Your task to perform on an android device: check android version Image 0: 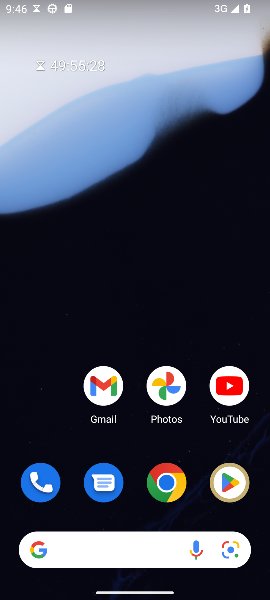
Step 0: drag from (116, 535) to (117, 162)
Your task to perform on an android device: check android version Image 1: 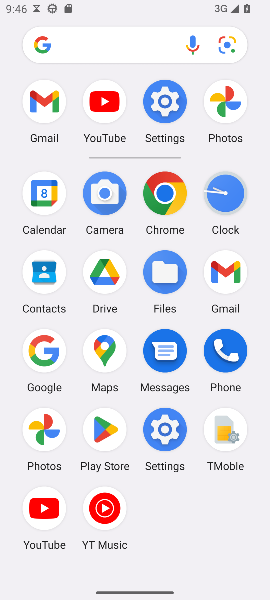
Step 1: click (174, 97)
Your task to perform on an android device: check android version Image 2: 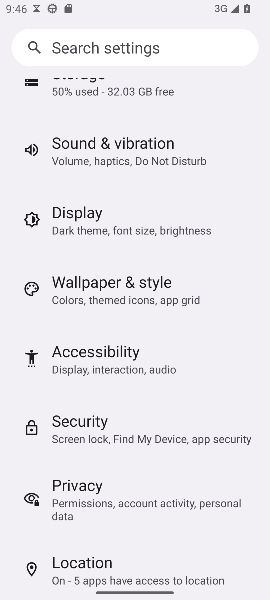
Step 2: drag from (87, 558) to (88, 117)
Your task to perform on an android device: check android version Image 3: 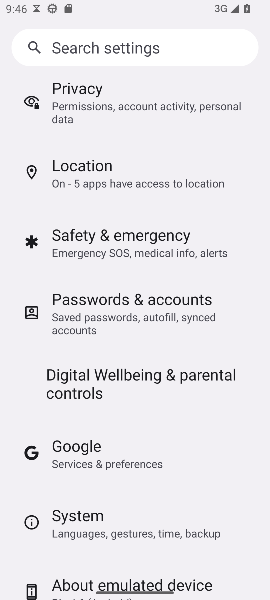
Step 3: drag from (116, 562) to (80, 157)
Your task to perform on an android device: check android version Image 4: 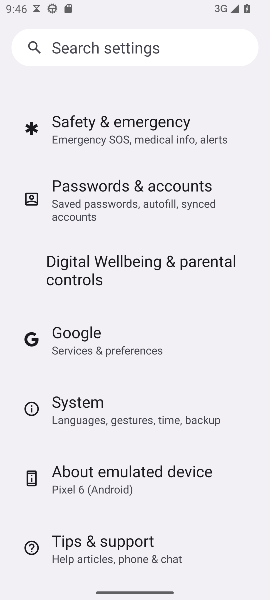
Step 4: click (135, 489)
Your task to perform on an android device: check android version Image 5: 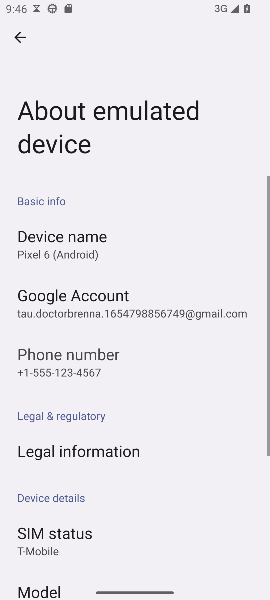
Step 5: drag from (144, 504) to (142, 176)
Your task to perform on an android device: check android version Image 6: 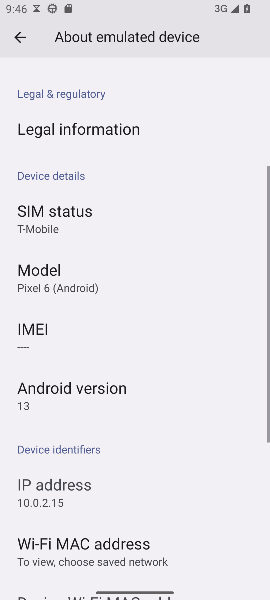
Step 6: click (73, 391)
Your task to perform on an android device: check android version Image 7: 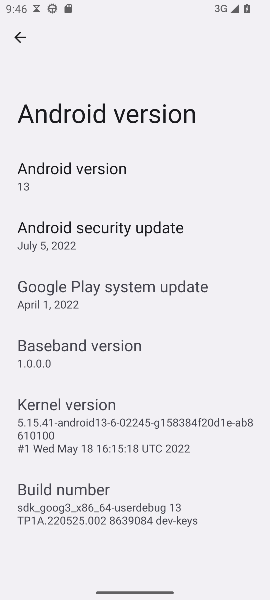
Step 7: drag from (77, 479) to (50, 227)
Your task to perform on an android device: check android version Image 8: 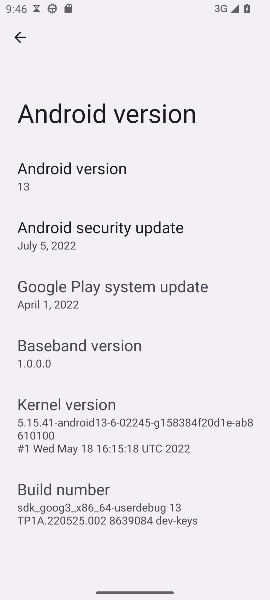
Step 8: drag from (148, 501) to (170, 275)
Your task to perform on an android device: check android version Image 9: 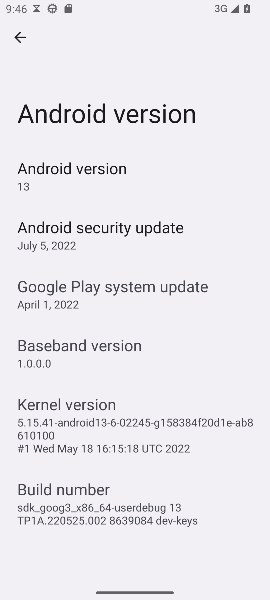
Step 9: drag from (168, 274) to (174, 530)
Your task to perform on an android device: check android version Image 10: 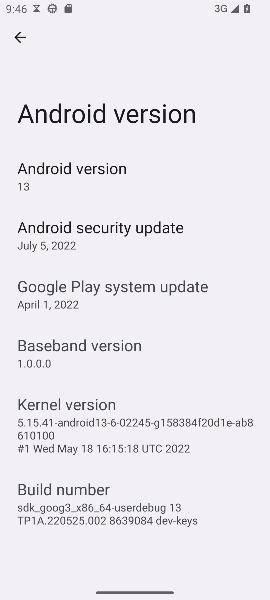
Step 10: click (74, 185)
Your task to perform on an android device: check android version Image 11: 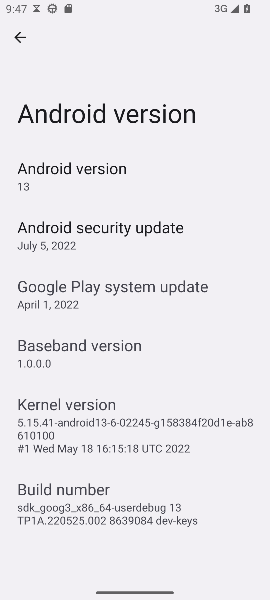
Step 11: task complete